Your task to perform on an android device: Search for pizza restaurants on Maps Image 0: 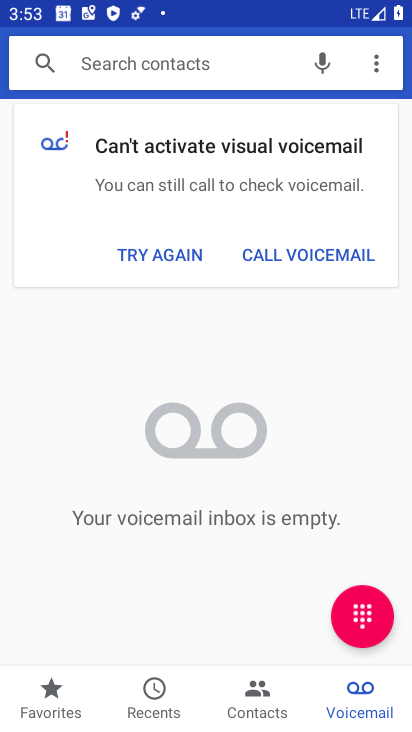
Step 0: press home button
Your task to perform on an android device: Search for pizza restaurants on Maps Image 1: 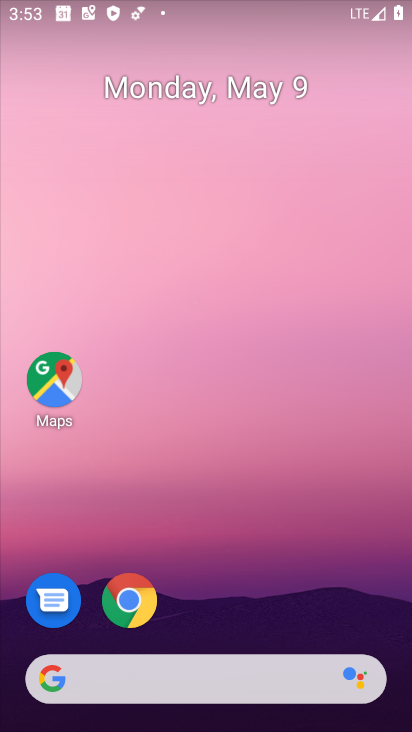
Step 1: drag from (285, 648) to (241, 18)
Your task to perform on an android device: Search for pizza restaurants on Maps Image 2: 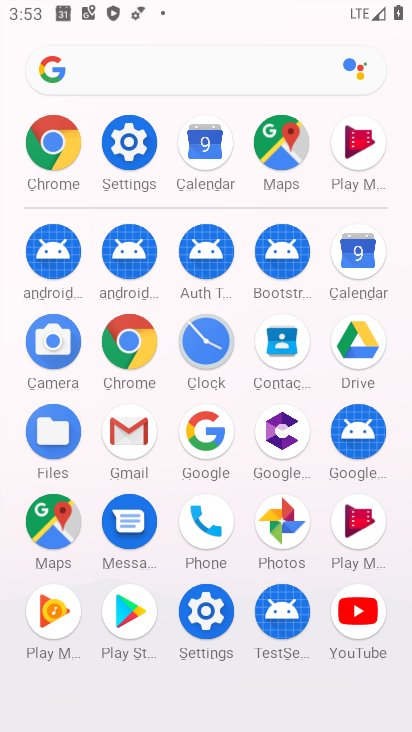
Step 2: click (287, 145)
Your task to perform on an android device: Search for pizza restaurants on Maps Image 3: 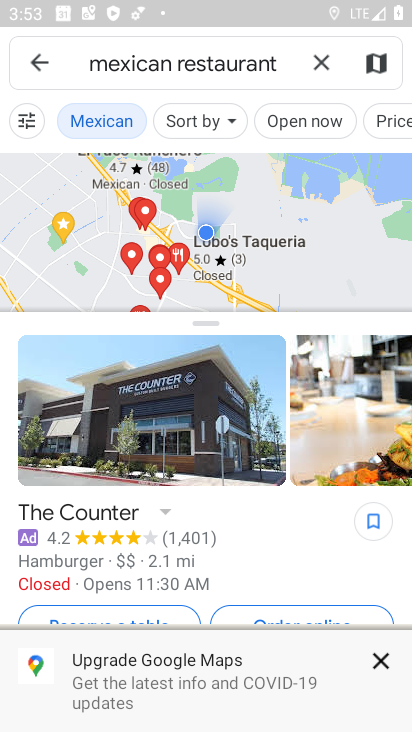
Step 3: click (318, 62)
Your task to perform on an android device: Search for pizza restaurants on Maps Image 4: 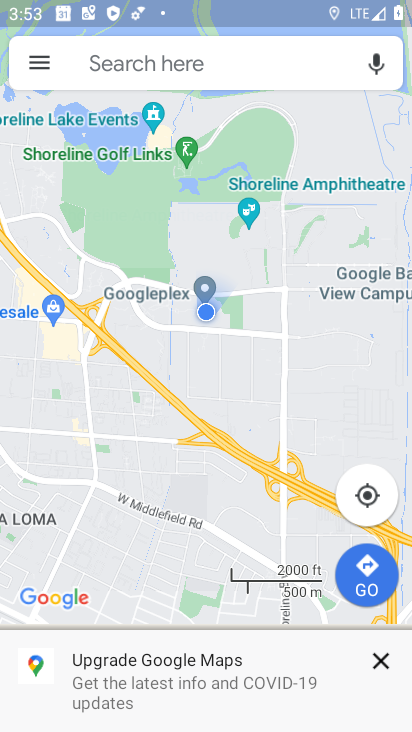
Step 4: click (225, 50)
Your task to perform on an android device: Search for pizza restaurants on Maps Image 5: 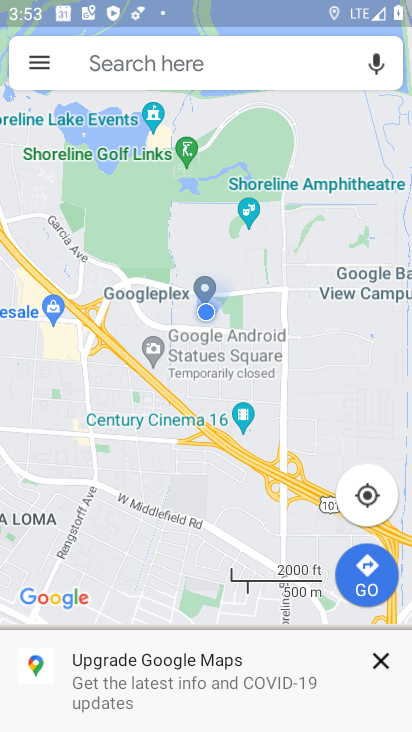
Step 5: click (225, 50)
Your task to perform on an android device: Search for pizza restaurants on Maps Image 6: 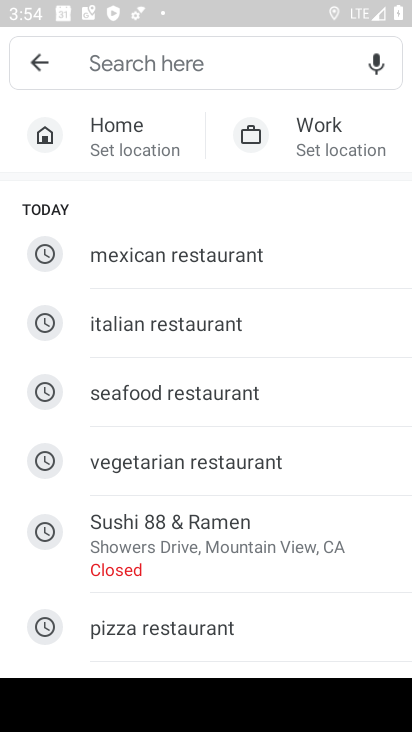
Step 6: type "pizza restaurant"
Your task to perform on an android device: Search for pizza restaurants on Maps Image 7: 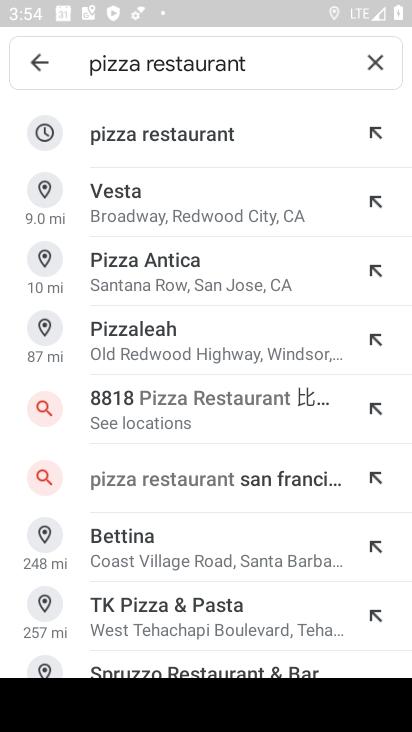
Step 7: click (184, 144)
Your task to perform on an android device: Search for pizza restaurants on Maps Image 8: 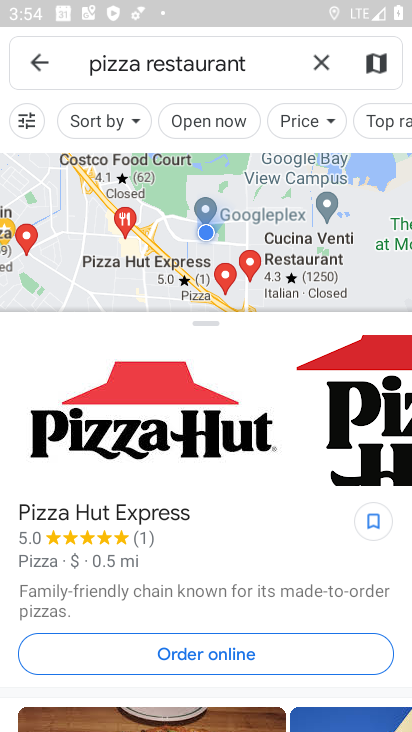
Step 8: task complete